Your task to perform on an android device: change alarm snooze length Image 0: 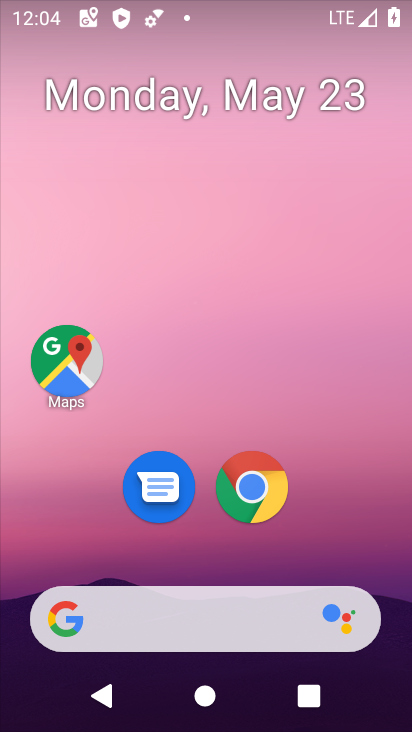
Step 0: drag from (315, 520) to (349, 114)
Your task to perform on an android device: change alarm snooze length Image 1: 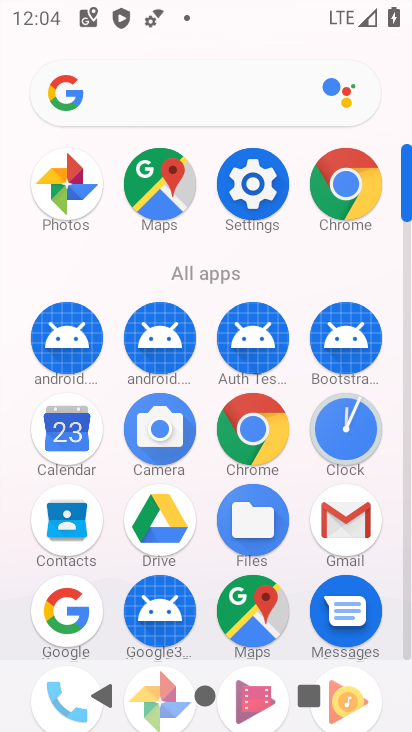
Step 1: click (342, 428)
Your task to perform on an android device: change alarm snooze length Image 2: 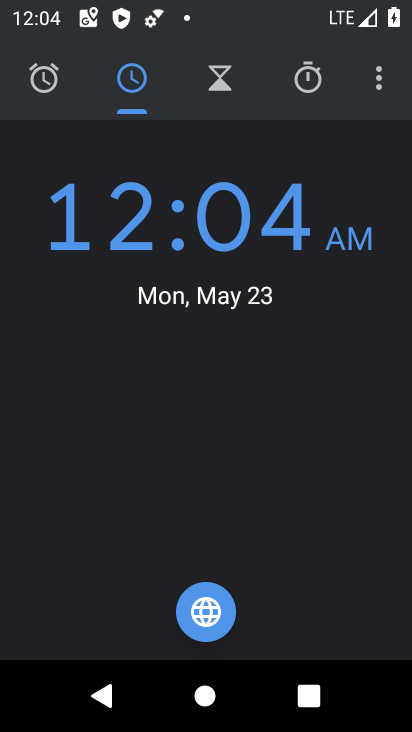
Step 2: click (380, 94)
Your task to perform on an android device: change alarm snooze length Image 3: 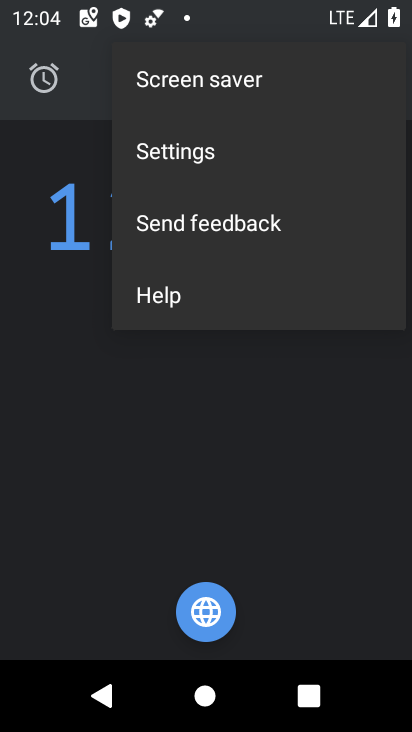
Step 3: click (271, 151)
Your task to perform on an android device: change alarm snooze length Image 4: 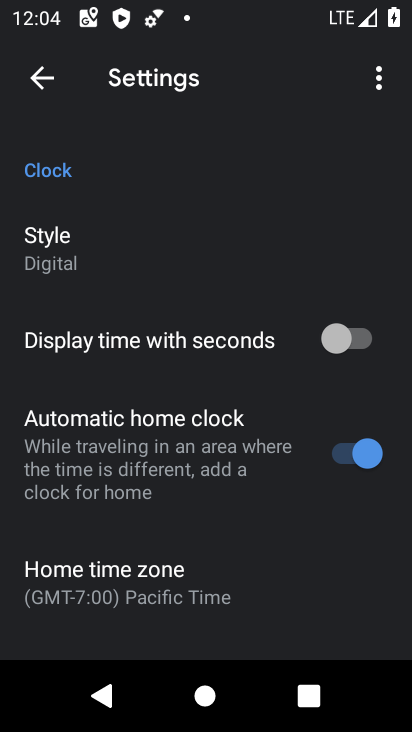
Step 4: drag from (202, 533) to (218, 151)
Your task to perform on an android device: change alarm snooze length Image 5: 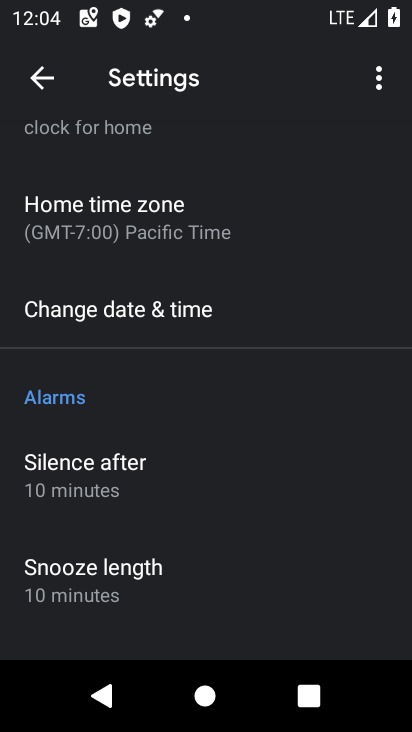
Step 5: click (144, 572)
Your task to perform on an android device: change alarm snooze length Image 6: 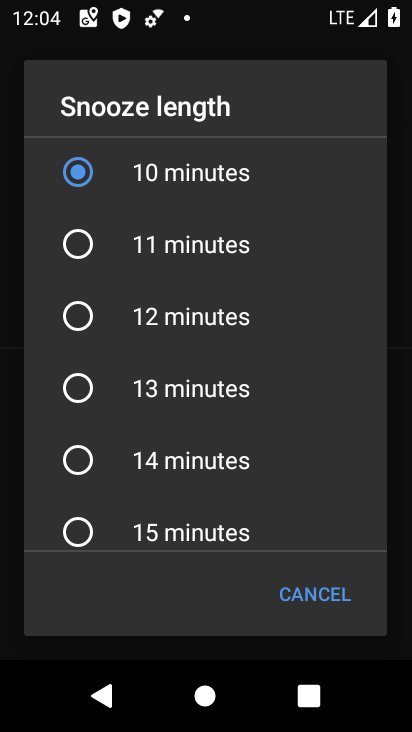
Step 6: click (83, 315)
Your task to perform on an android device: change alarm snooze length Image 7: 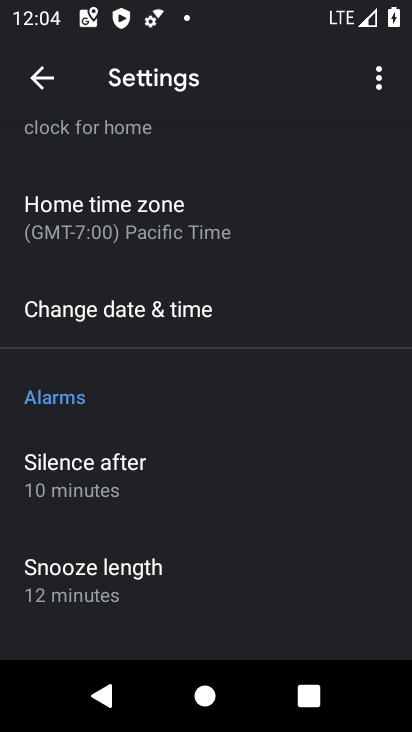
Step 7: task complete